Your task to perform on an android device: What's the weather going to be tomorrow? Image 0: 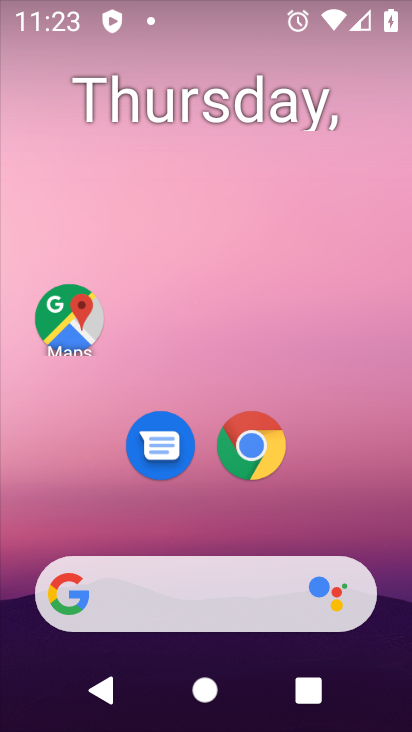
Step 0: drag from (375, 503) to (411, 100)
Your task to perform on an android device: What's the weather going to be tomorrow? Image 1: 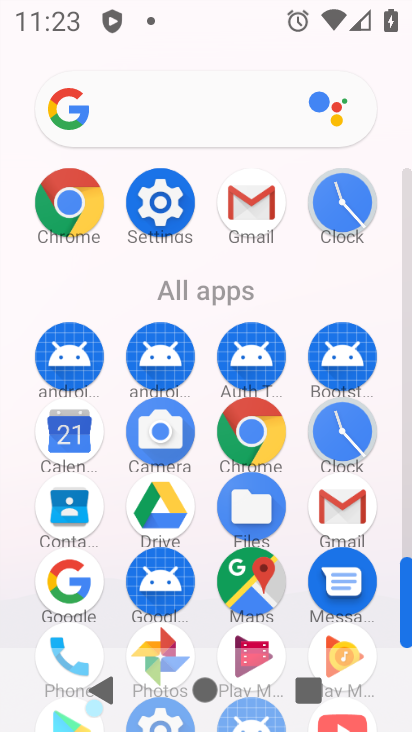
Step 1: click (88, 183)
Your task to perform on an android device: What's the weather going to be tomorrow? Image 2: 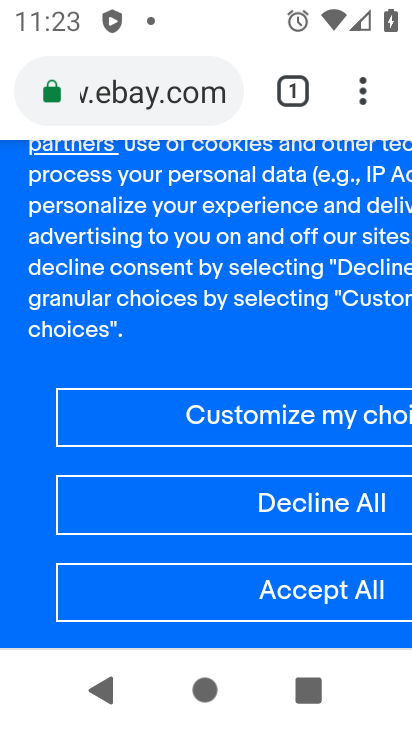
Step 2: press home button
Your task to perform on an android device: What's the weather going to be tomorrow? Image 3: 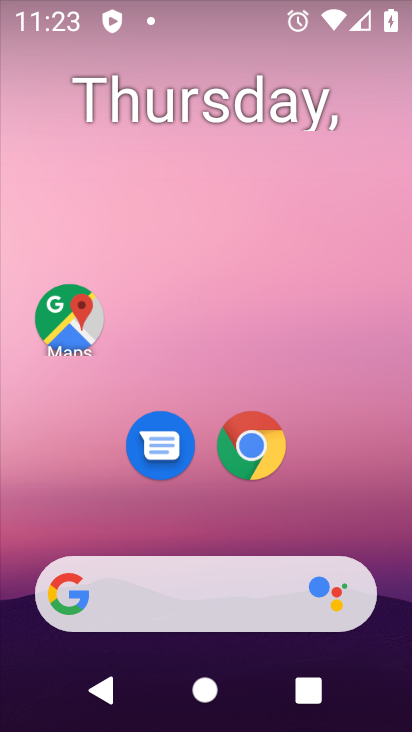
Step 3: drag from (132, 148) to (365, 133)
Your task to perform on an android device: What's the weather going to be tomorrow? Image 4: 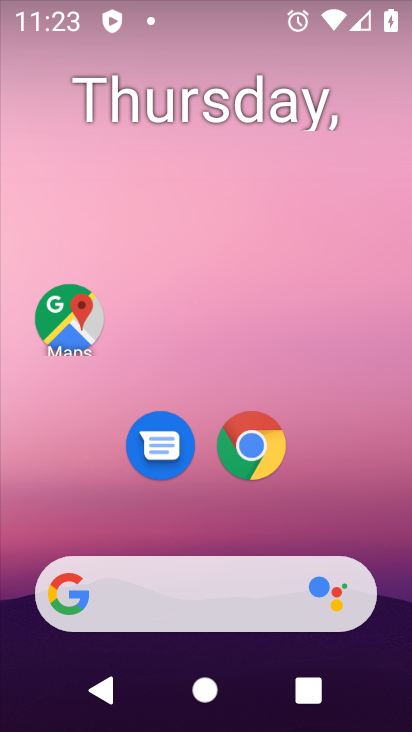
Step 4: drag from (59, 147) to (406, 170)
Your task to perform on an android device: What's the weather going to be tomorrow? Image 5: 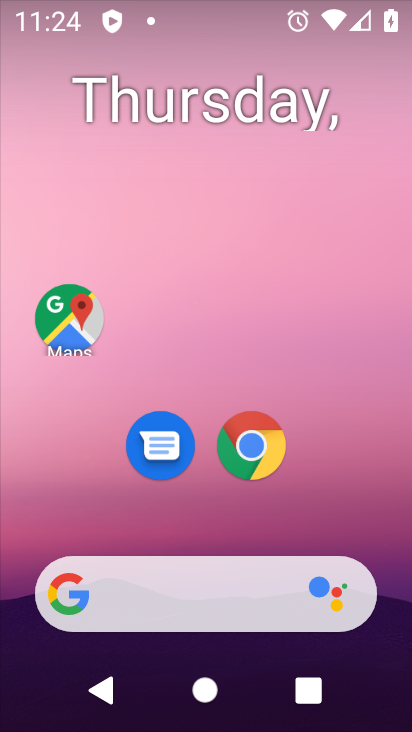
Step 5: drag from (358, 388) to (320, 8)
Your task to perform on an android device: What's the weather going to be tomorrow? Image 6: 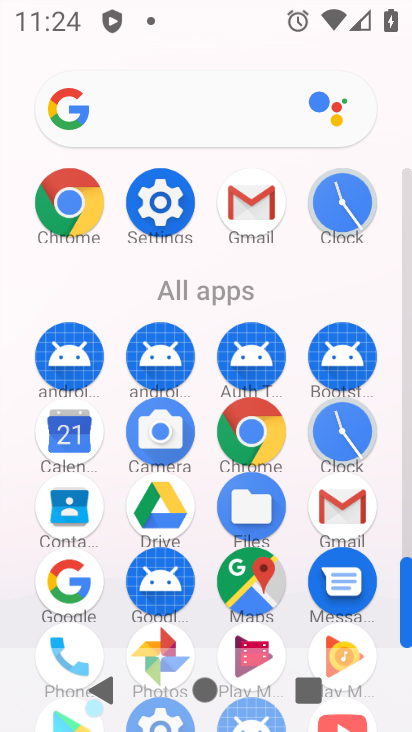
Step 6: press back button
Your task to perform on an android device: What's the weather going to be tomorrow? Image 7: 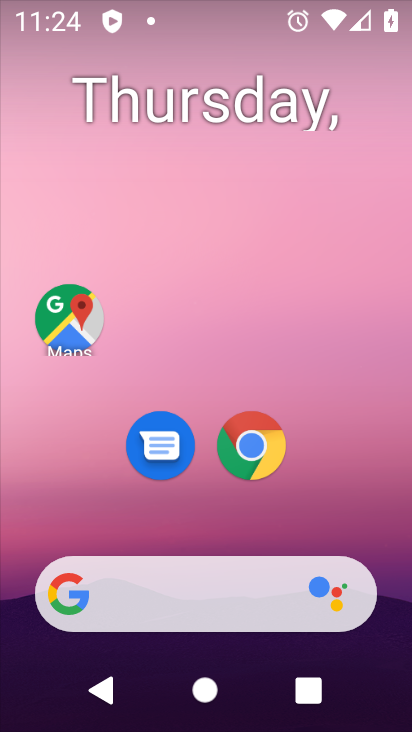
Step 7: drag from (168, 130) to (369, 136)
Your task to perform on an android device: What's the weather going to be tomorrow? Image 8: 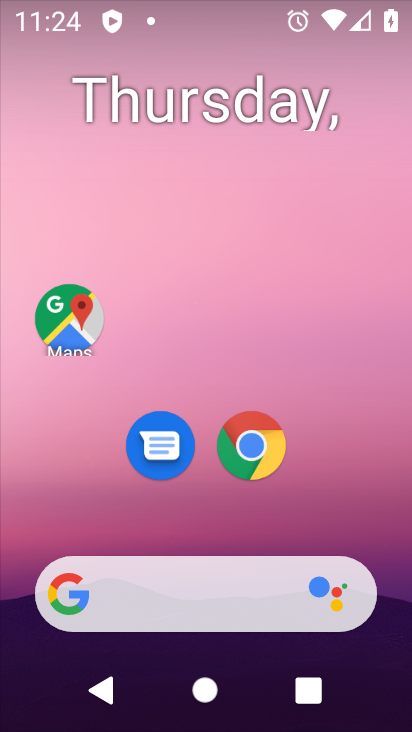
Step 8: drag from (5, 88) to (402, 162)
Your task to perform on an android device: What's the weather going to be tomorrow? Image 9: 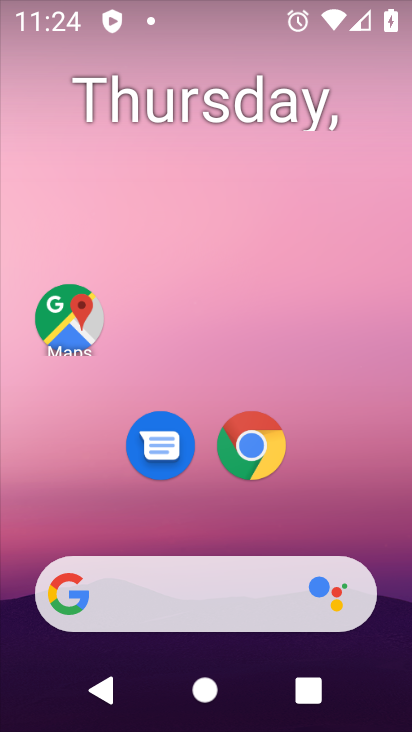
Step 9: drag from (9, 104) to (404, 201)
Your task to perform on an android device: What's the weather going to be tomorrow? Image 10: 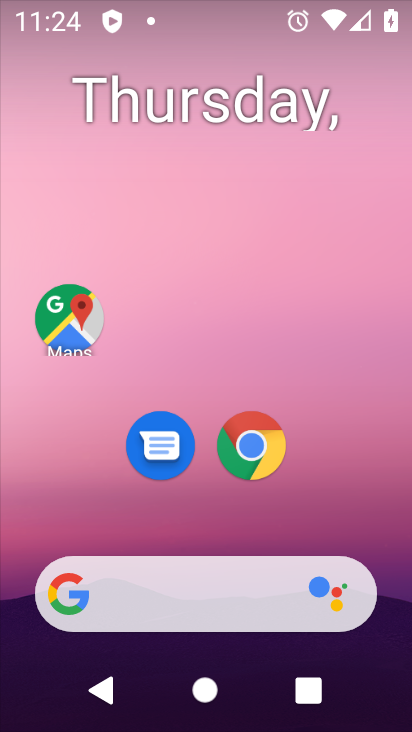
Step 10: drag from (5, 102) to (371, 125)
Your task to perform on an android device: What's the weather going to be tomorrow? Image 11: 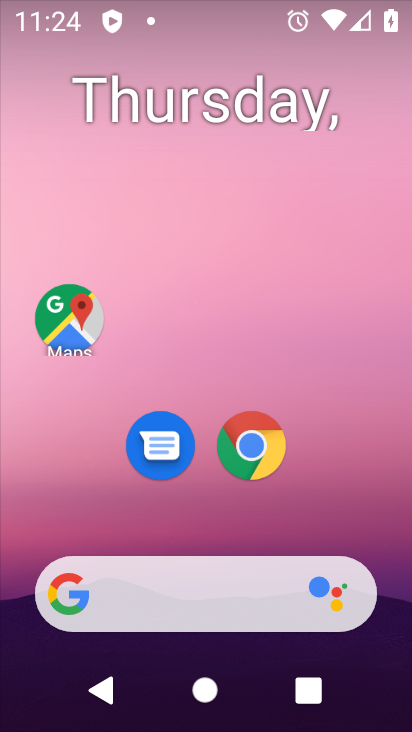
Step 11: drag from (15, 82) to (63, 98)
Your task to perform on an android device: What's the weather going to be tomorrow? Image 12: 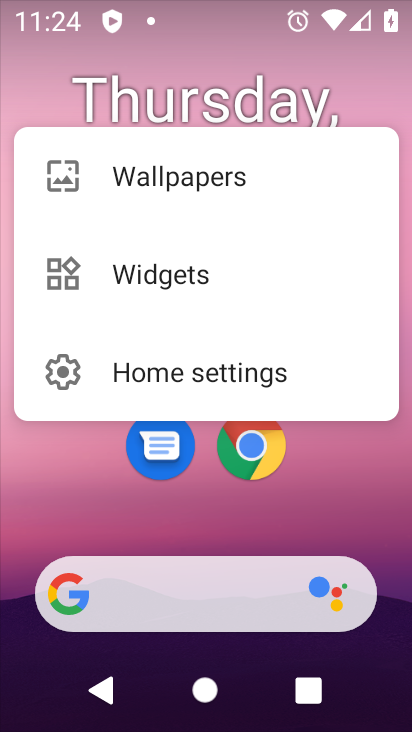
Step 12: drag from (10, 84) to (403, 137)
Your task to perform on an android device: What's the weather going to be tomorrow? Image 13: 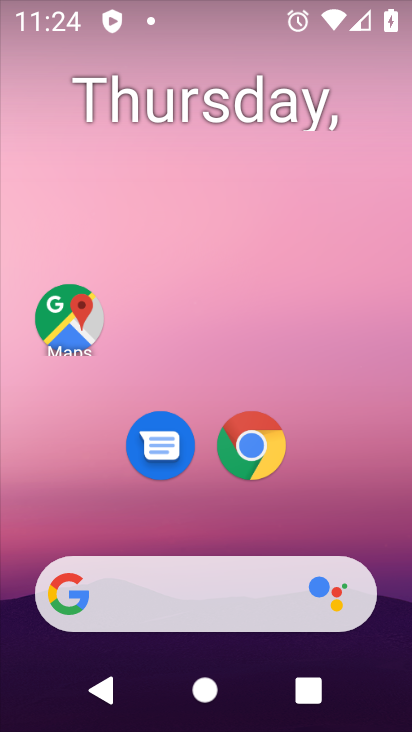
Step 13: drag from (157, 99) to (395, 44)
Your task to perform on an android device: What's the weather going to be tomorrow? Image 14: 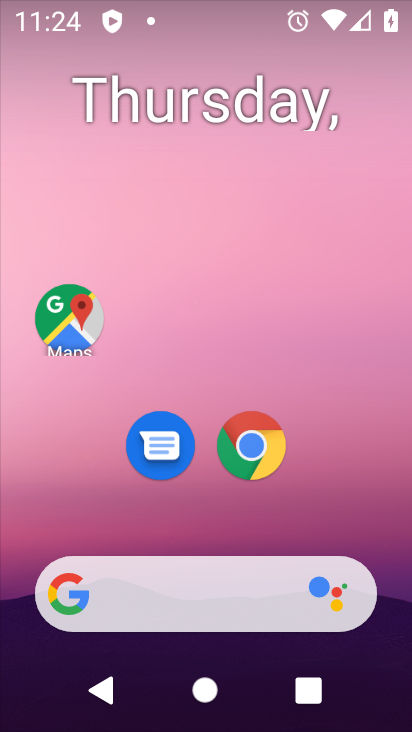
Step 14: drag from (47, 111) to (402, 157)
Your task to perform on an android device: What's the weather going to be tomorrow? Image 15: 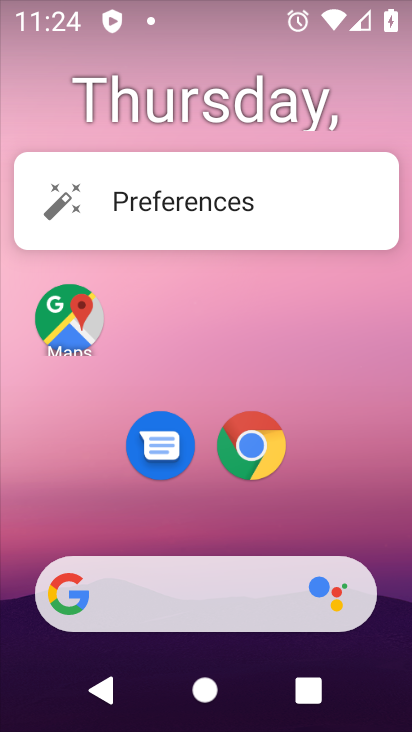
Step 15: click (26, 82)
Your task to perform on an android device: What's the weather going to be tomorrow? Image 16: 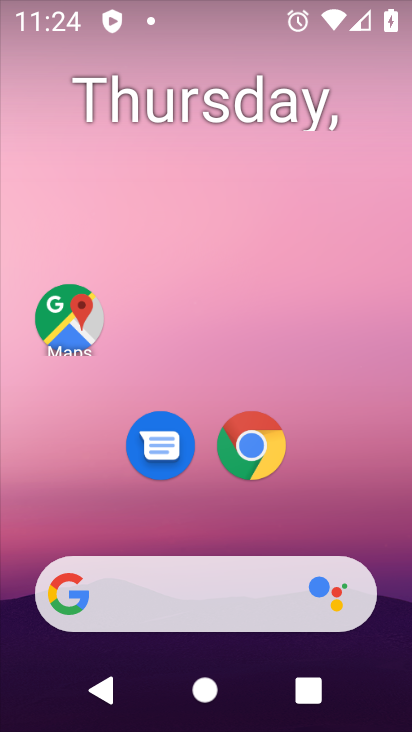
Step 16: drag from (0, 83) to (390, 133)
Your task to perform on an android device: What's the weather going to be tomorrow? Image 17: 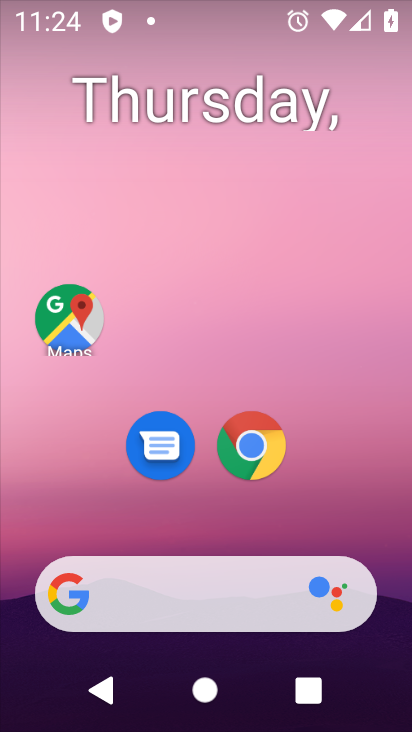
Step 17: click (81, 588)
Your task to perform on an android device: What's the weather going to be tomorrow? Image 18: 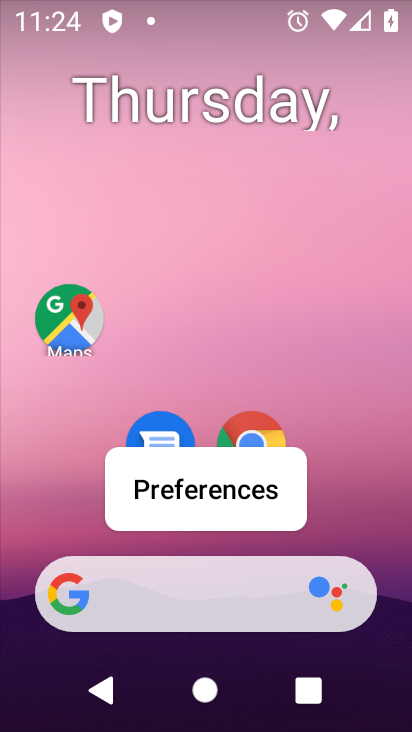
Step 18: click (61, 599)
Your task to perform on an android device: What's the weather going to be tomorrow? Image 19: 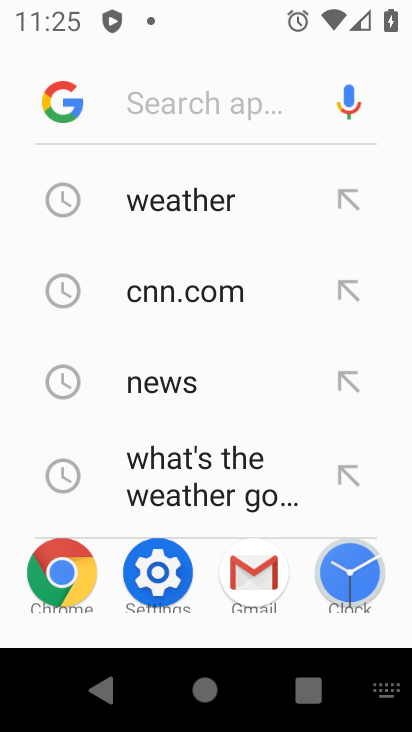
Step 19: click (144, 209)
Your task to perform on an android device: What's the weather going to be tomorrow? Image 20: 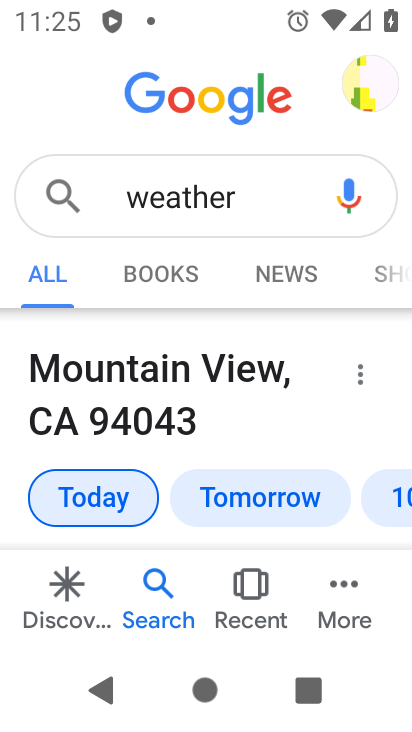
Step 20: click (247, 502)
Your task to perform on an android device: What's the weather going to be tomorrow? Image 21: 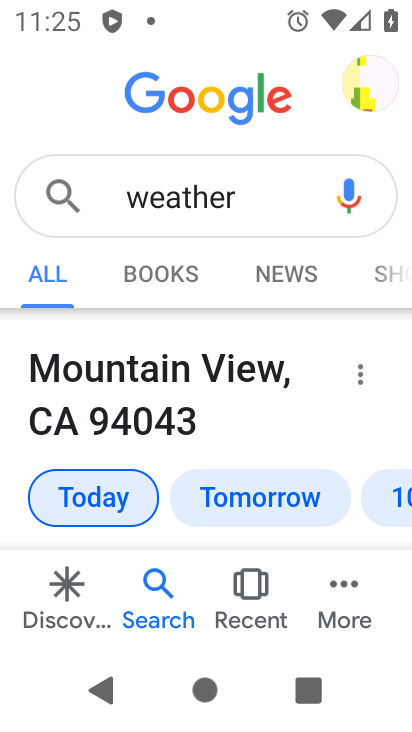
Step 21: click (247, 502)
Your task to perform on an android device: What's the weather going to be tomorrow? Image 22: 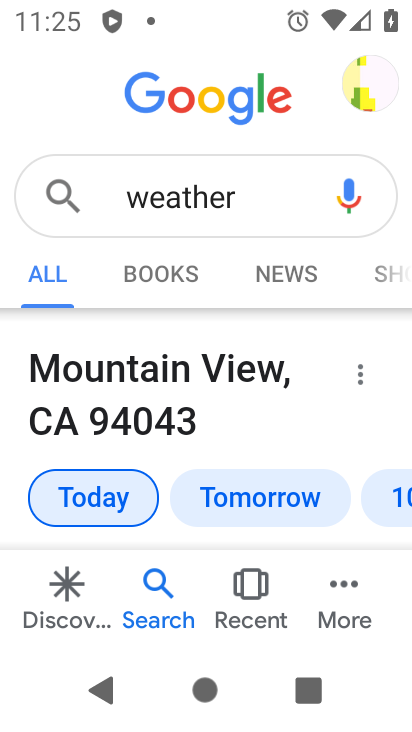
Step 22: click (247, 502)
Your task to perform on an android device: What's the weather going to be tomorrow? Image 23: 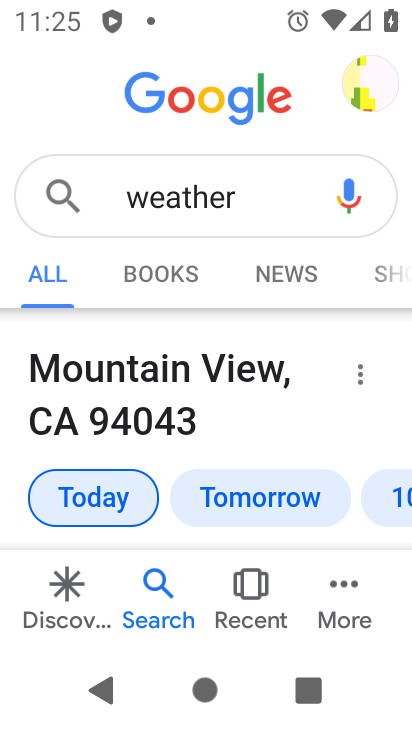
Step 23: click (247, 502)
Your task to perform on an android device: What's the weather going to be tomorrow? Image 24: 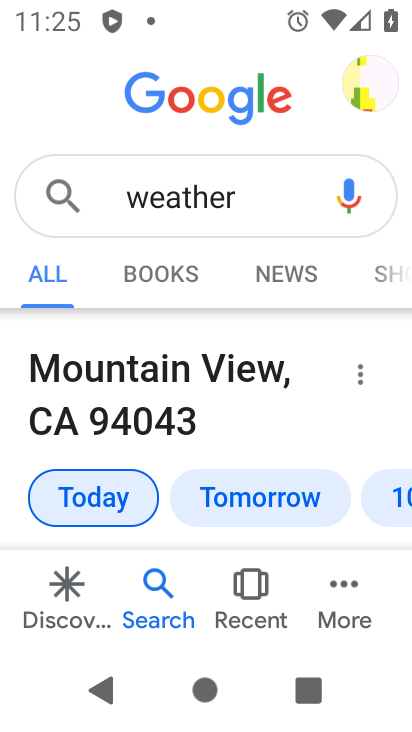
Step 24: click (247, 502)
Your task to perform on an android device: What's the weather going to be tomorrow? Image 25: 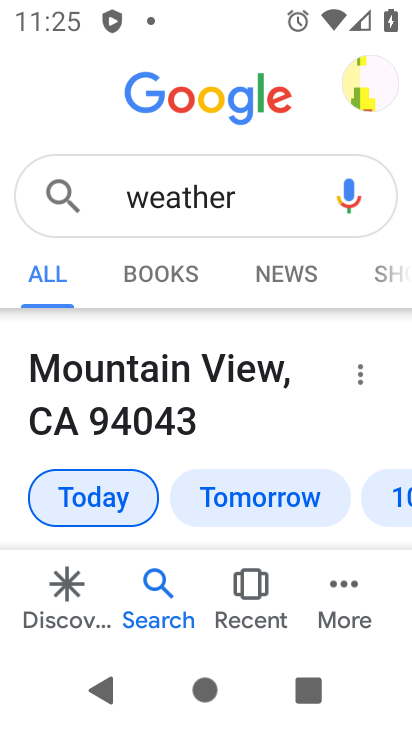
Step 25: click (247, 502)
Your task to perform on an android device: What's the weather going to be tomorrow? Image 26: 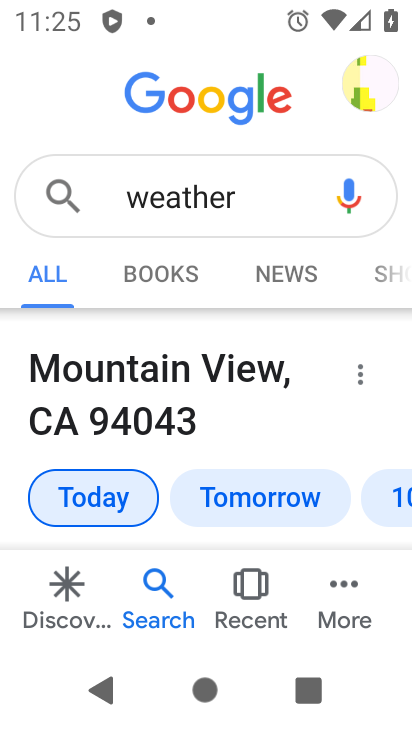
Step 26: click (235, 510)
Your task to perform on an android device: What's the weather going to be tomorrow? Image 27: 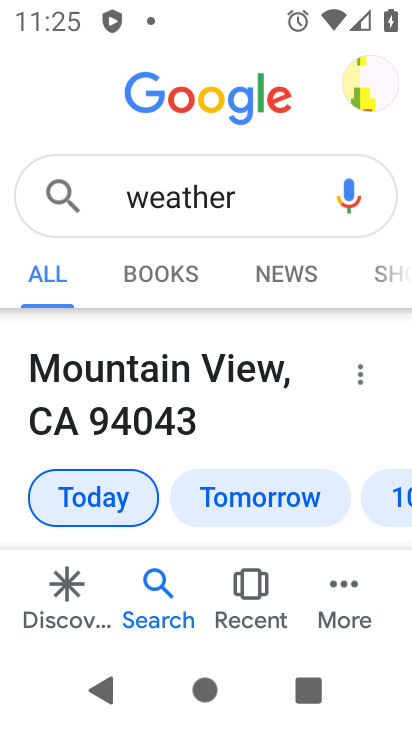
Step 27: click (247, 494)
Your task to perform on an android device: What's the weather going to be tomorrow? Image 28: 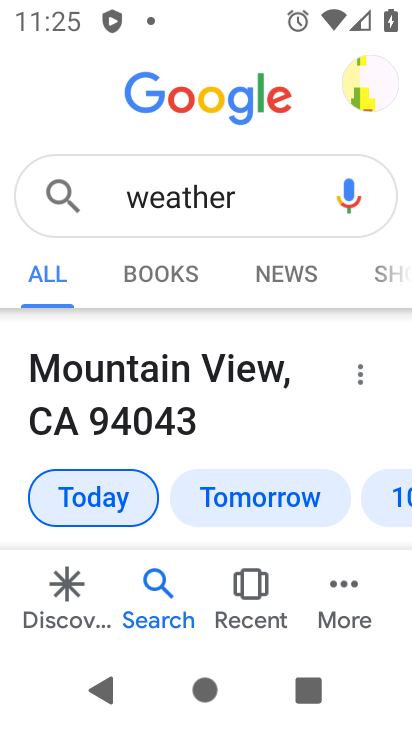
Step 28: click (247, 494)
Your task to perform on an android device: What's the weather going to be tomorrow? Image 29: 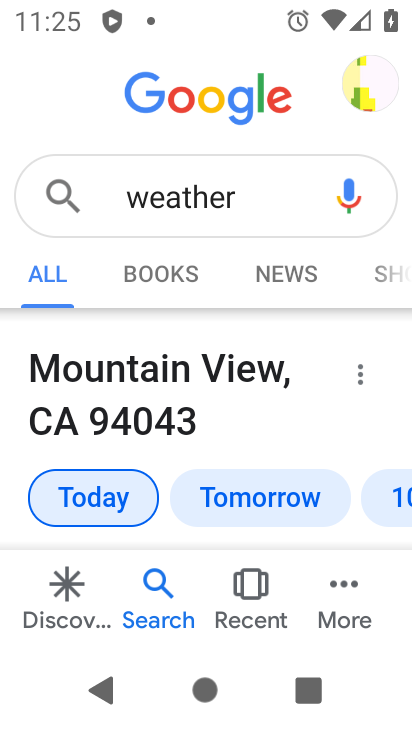
Step 29: click (247, 494)
Your task to perform on an android device: What's the weather going to be tomorrow? Image 30: 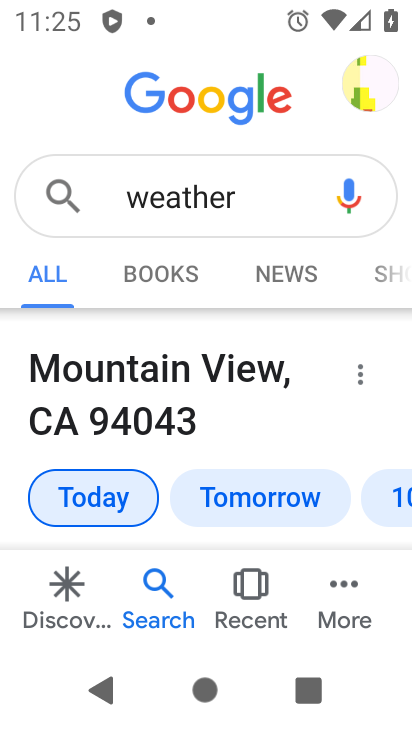
Step 30: click (248, 493)
Your task to perform on an android device: What's the weather going to be tomorrow? Image 31: 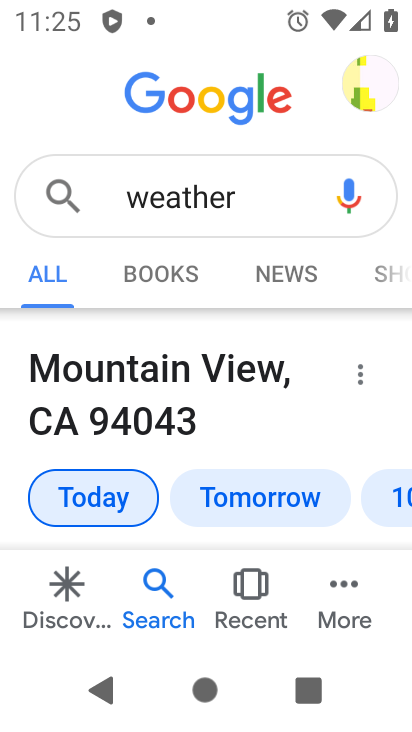
Step 31: click (248, 493)
Your task to perform on an android device: What's the weather going to be tomorrow? Image 32: 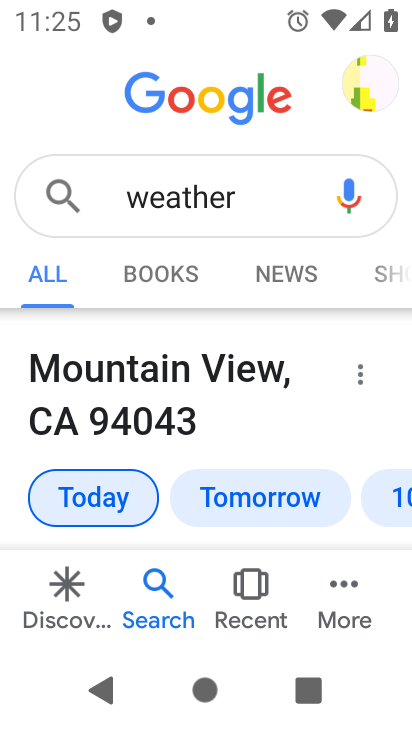
Step 32: click (265, 499)
Your task to perform on an android device: What's the weather going to be tomorrow? Image 33: 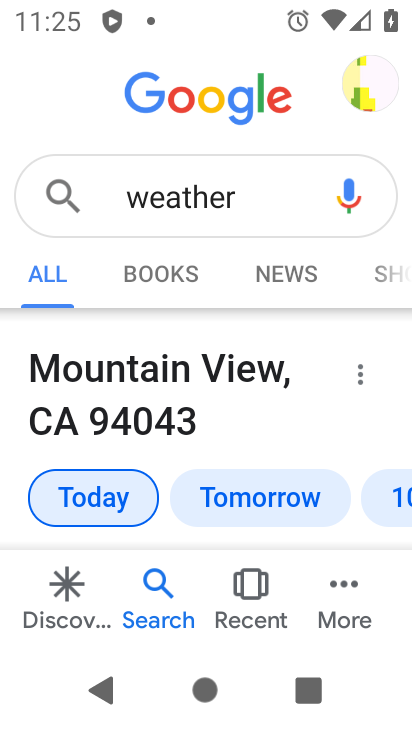
Step 33: click (265, 499)
Your task to perform on an android device: What's the weather going to be tomorrow? Image 34: 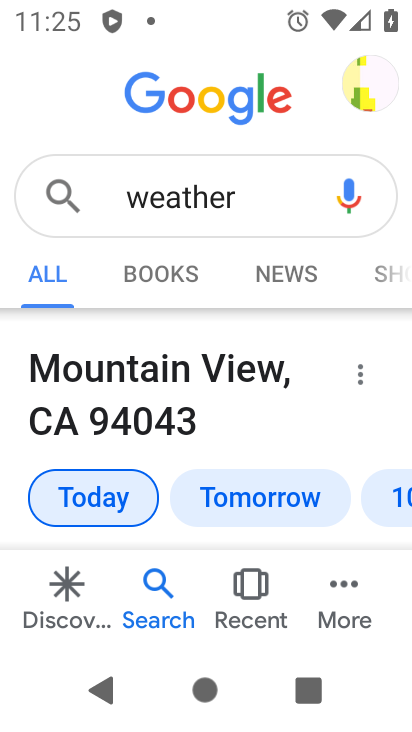
Step 34: click (265, 499)
Your task to perform on an android device: What's the weather going to be tomorrow? Image 35: 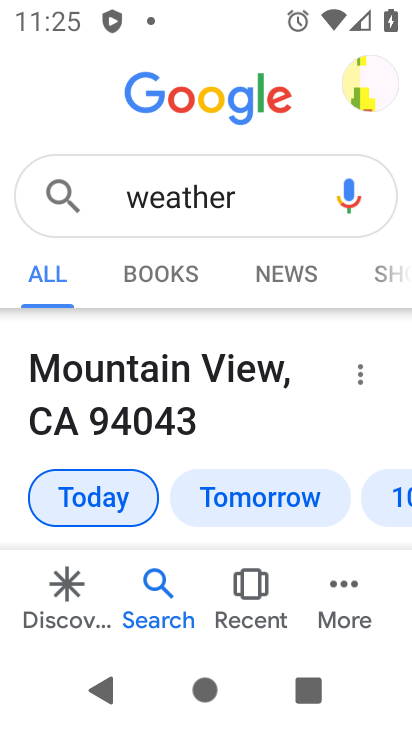
Step 35: click (265, 499)
Your task to perform on an android device: What's the weather going to be tomorrow? Image 36: 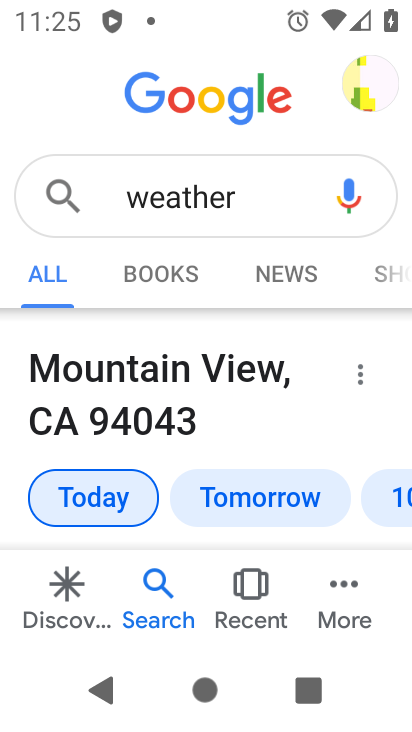
Step 36: click (265, 499)
Your task to perform on an android device: What's the weather going to be tomorrow? Image 37: 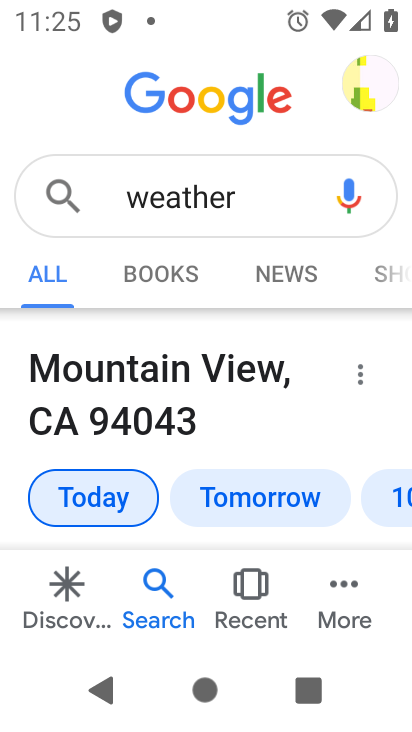
Step 37: click (265, 499)
Your task to perform on an android device: What's the weather going to be tomorrow? Image 38: 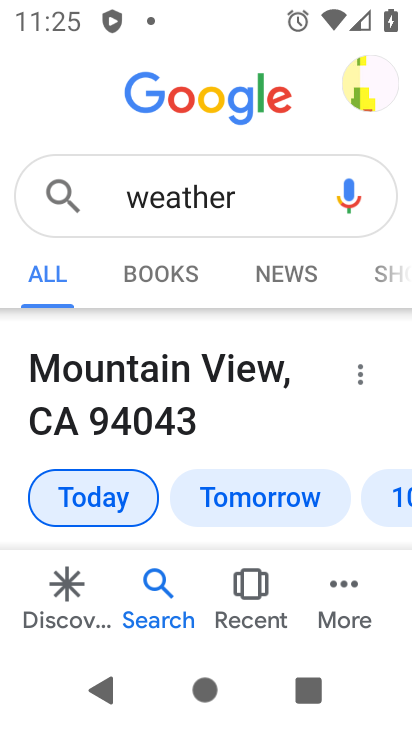
Step 38: click (265, 499)
Your task to perform on an android device: What's the weather going to be tomorrow? Image 39: 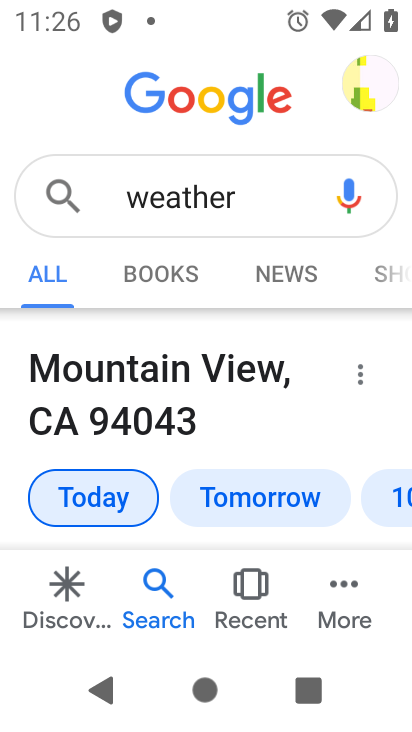
Step 39: click (265, 499)
Your task to perform on an android device: What's the weather going to be tomorrow? Image 40: 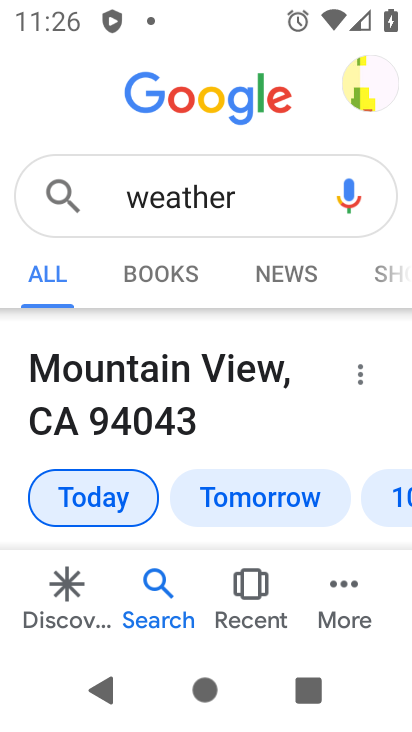
Step 40: task complete